Your task to perform on an android device: Open the stopwatch Image 0: 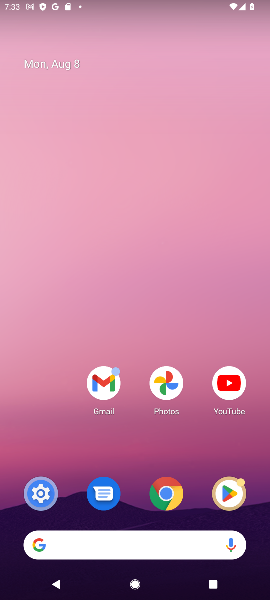
Step 0: drag from (162, 536) to (154, 189)
Your task to perform on an android device: Open the stopwatch Image 1: 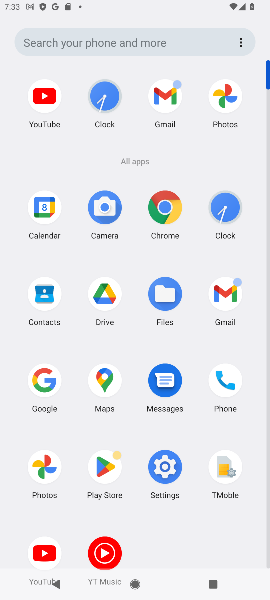
Step 1: click (225, 207)
Your task to perform on an android device: Open the stopwatch Image 2: 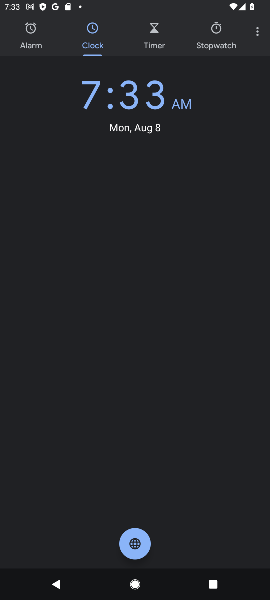
Step 2: click (207, 34)
Your task to perform on an android device: Open the stopwatch Image 3: 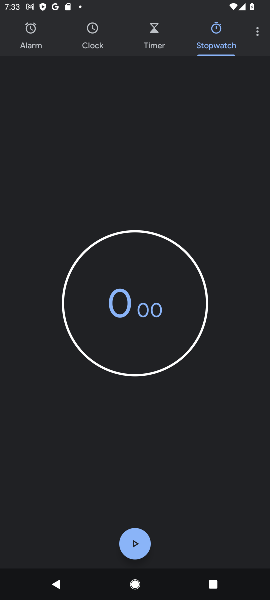
Step 3: task complete